Your task to perform on an android device: change the clock style Image 0: 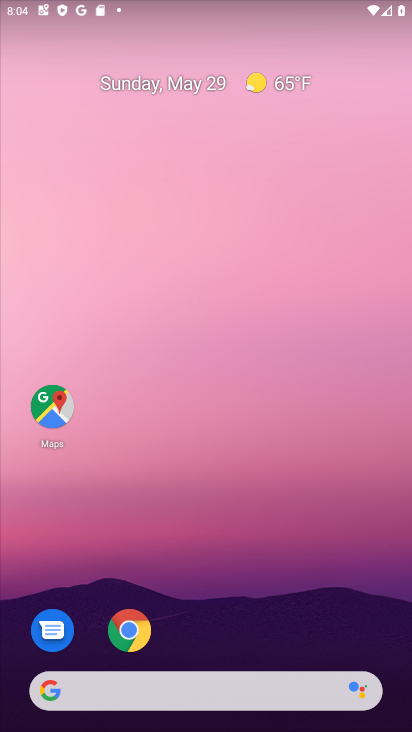
Step 0: drag from (167, 684) to (167, 159)
Your task to perform on an android device: change the clock style Image 1: 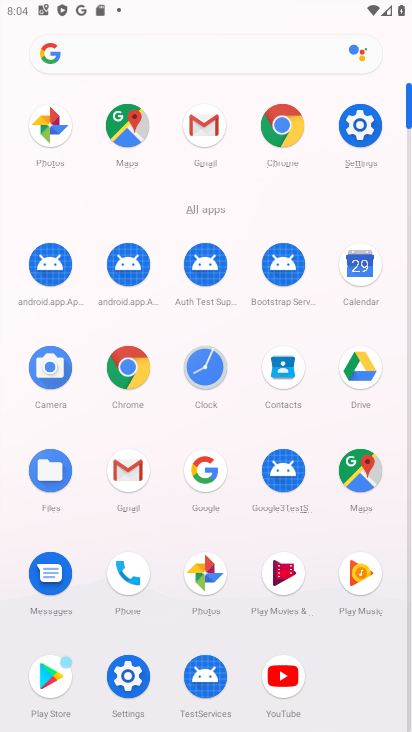
Step 1: click (208, 375)
Your task to perform on an android device: change the clock style Image 2: 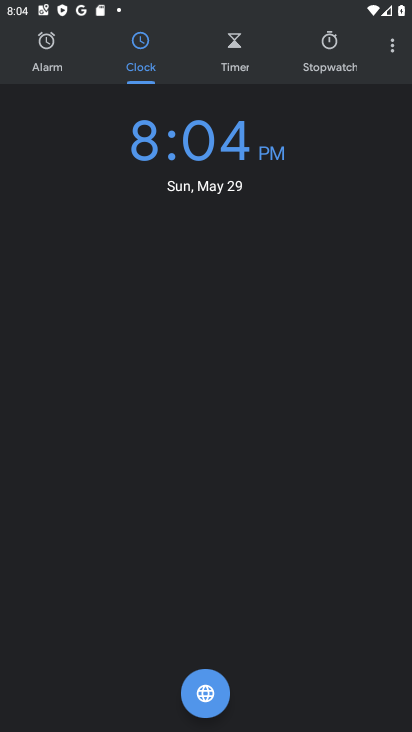
Step 2: click (396, 55)
Your task to perform on an android device: change the clock style Image 3: 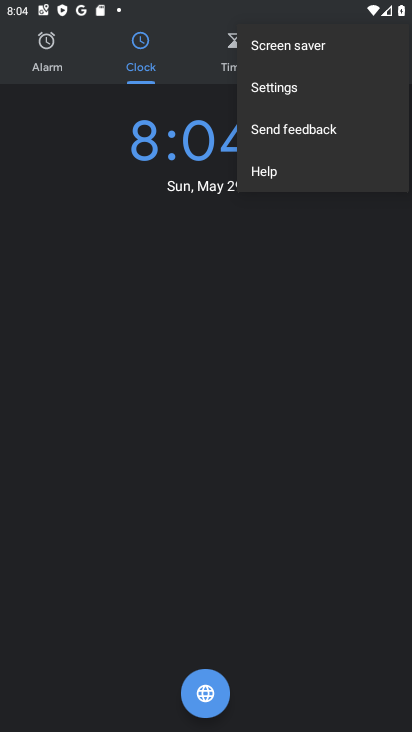
Step 3: click (274, 87)
Your task to perform on an android device: change the clock style Image 4: 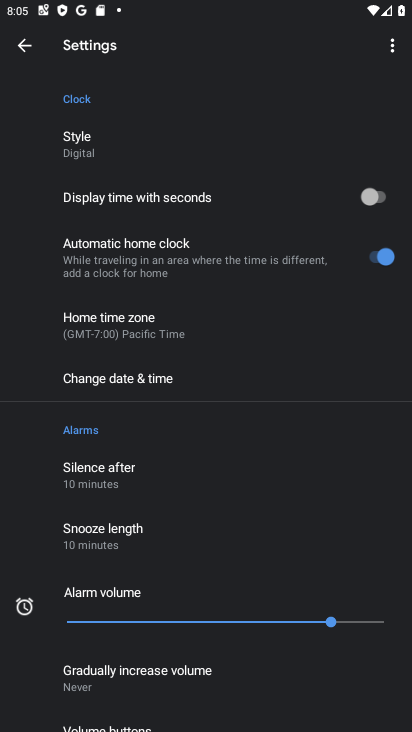
Step 4: click (81, 151)
Your task to perform on an android device: change the clock style Image 5: 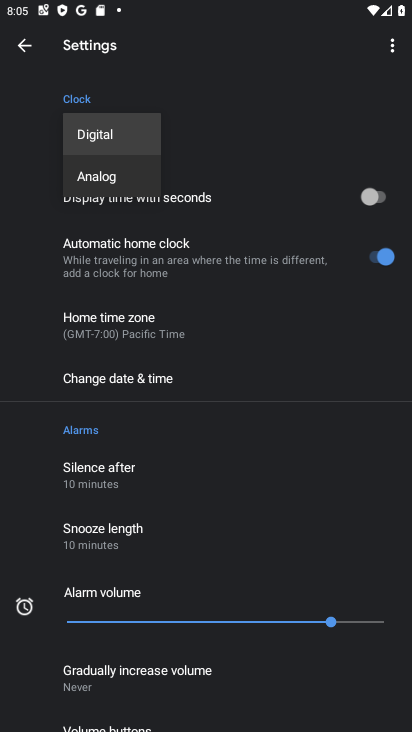
Step 5: click (90, 173)
Your task to perform on an android device: change the clock style Image 6: 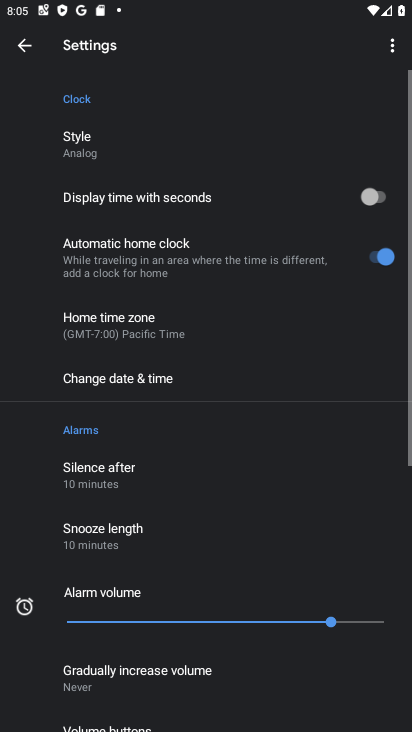
Step 6: task complete